Your task to perform on an android device: Open Yahoo.com Image 0: 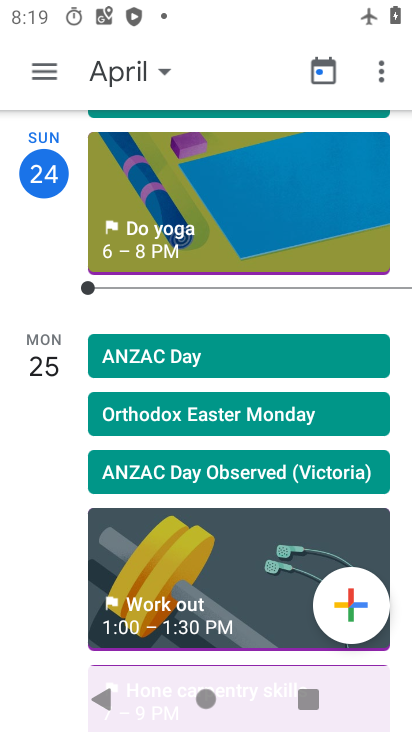
Step 0: click (378, 68)
Your task to perform on an android device: Open Yahoo.com Image 1: 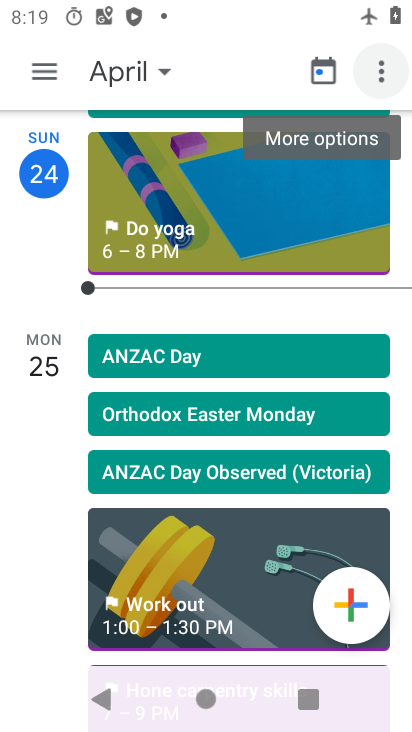
Step 1: click (378, 68)
Your task to perform on an android device: Open Yahoo.com Image 2: 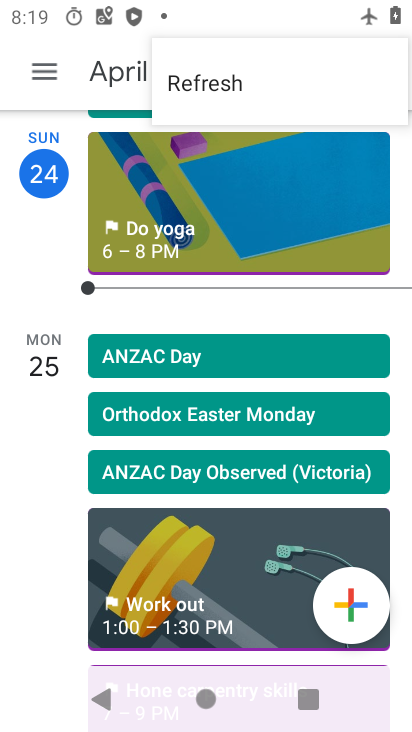
Step 2: click (378, 68)
Your task to perform on an android device: Open Yahoo.com Image 3: 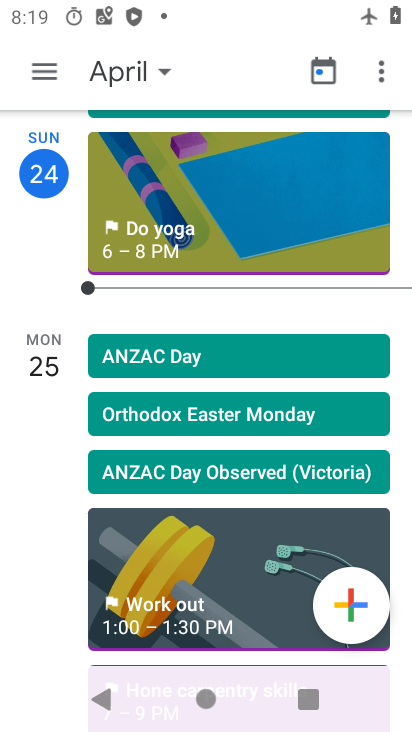
Step 3: press home button
Your task to perform on an android device: Open Yahoo.com Image 4: 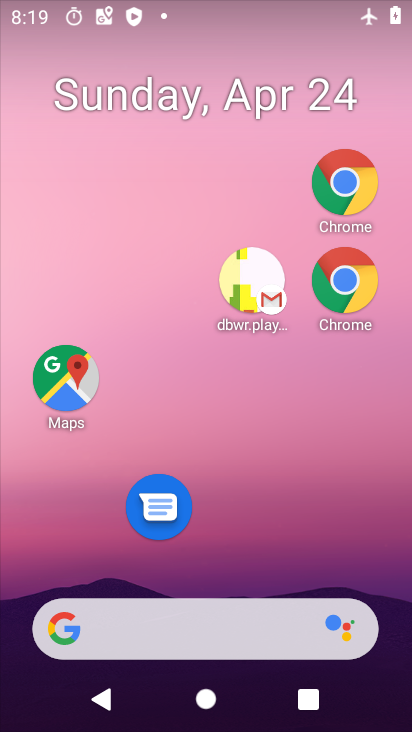
Step 4: drag from (233, 621) to (233, 92)
Your task to perform on an android device: Open Yahoo.com Image 5: 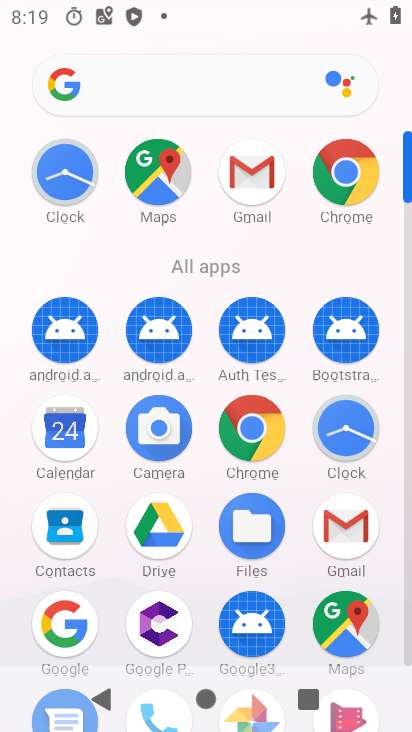
Step 5: click (360, 176)
Your task to perform on an android device: Open Yahoo.com Image 6: 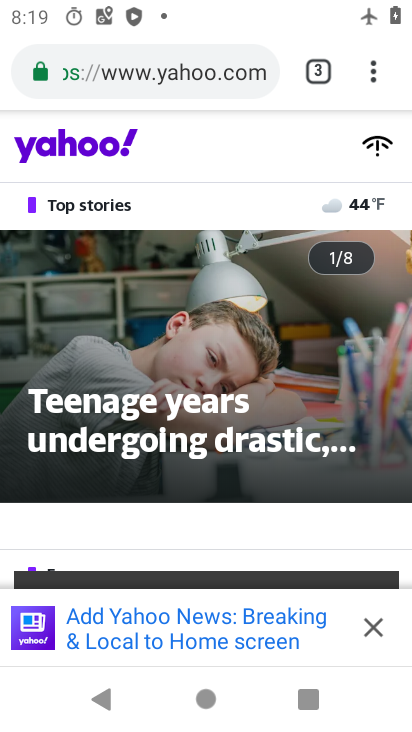
Step 6: task complete